Your task to perform on an android device: Open location settings Image 0: 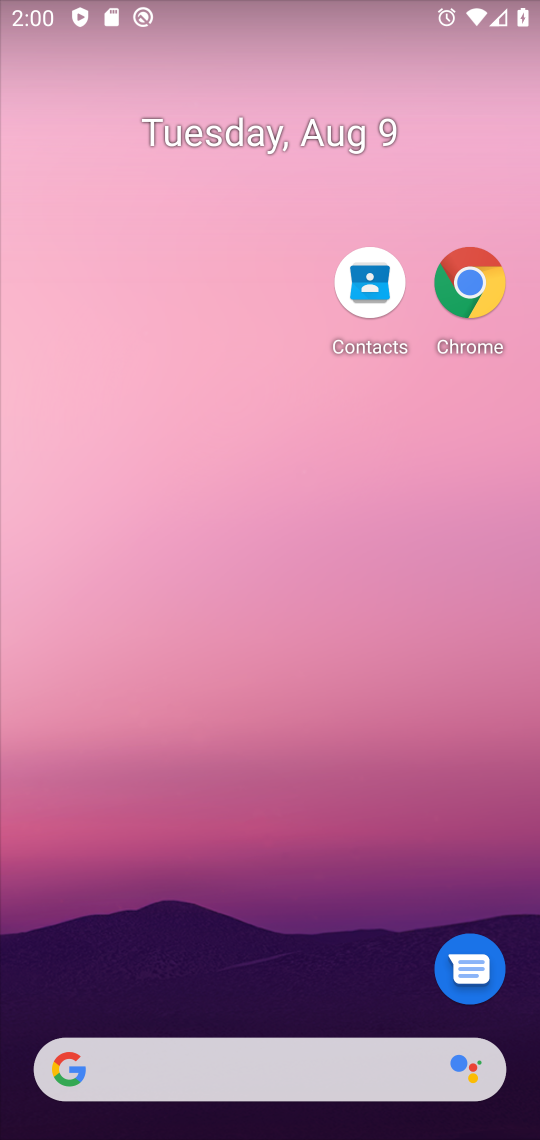
Step 0: drag from (308, 995) to (283, 262)
Your task to perform on an android device: Open location settings Image 1: 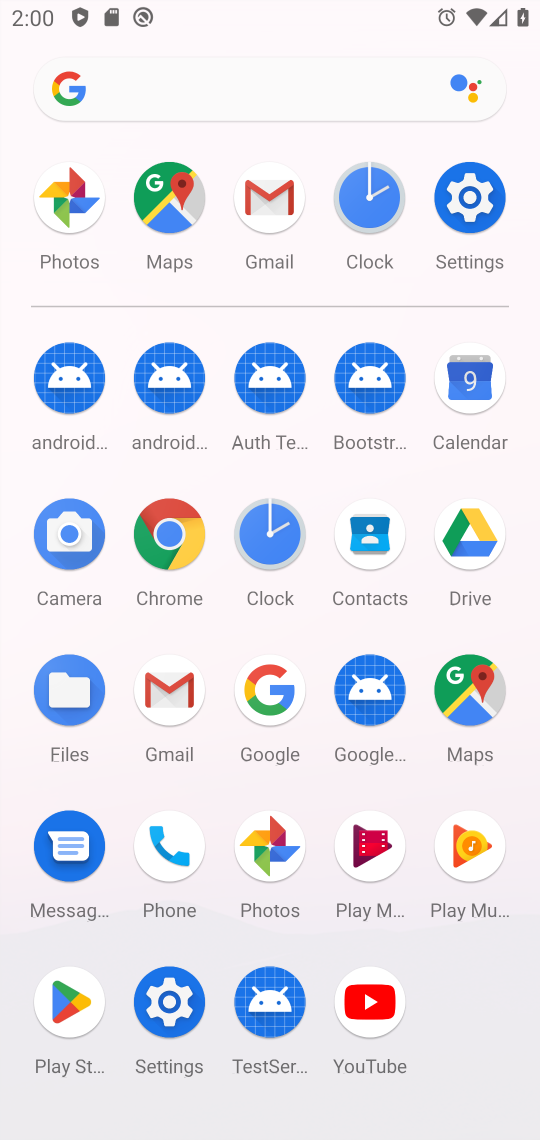
Step 1: click (179, 976)
Your task to perform on an android device: Open location settings Image 2: 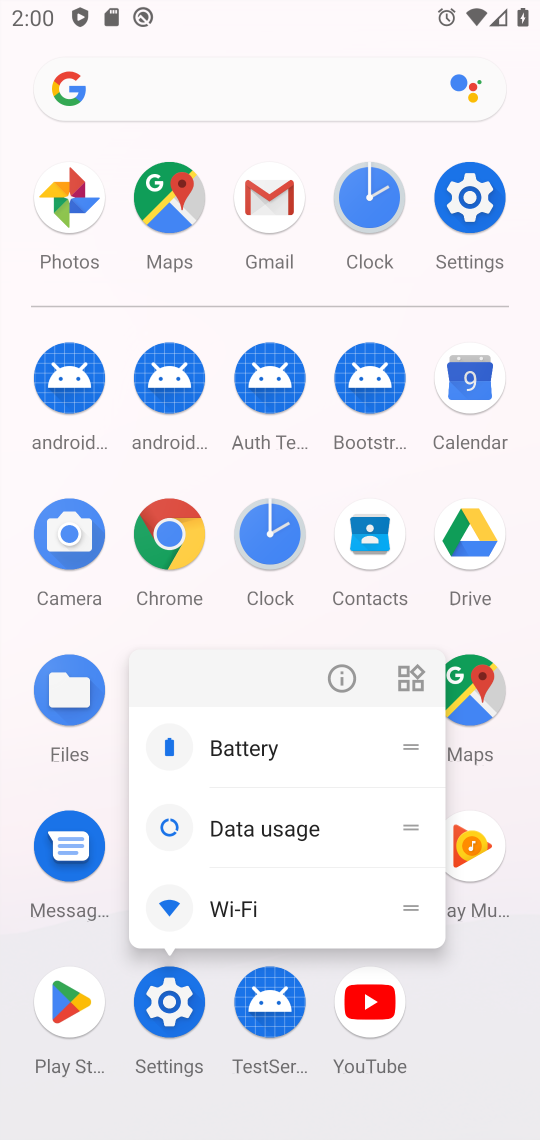
Step 2: click (340, 667)
Your task to perform on an android device: Open location settings Image 3: 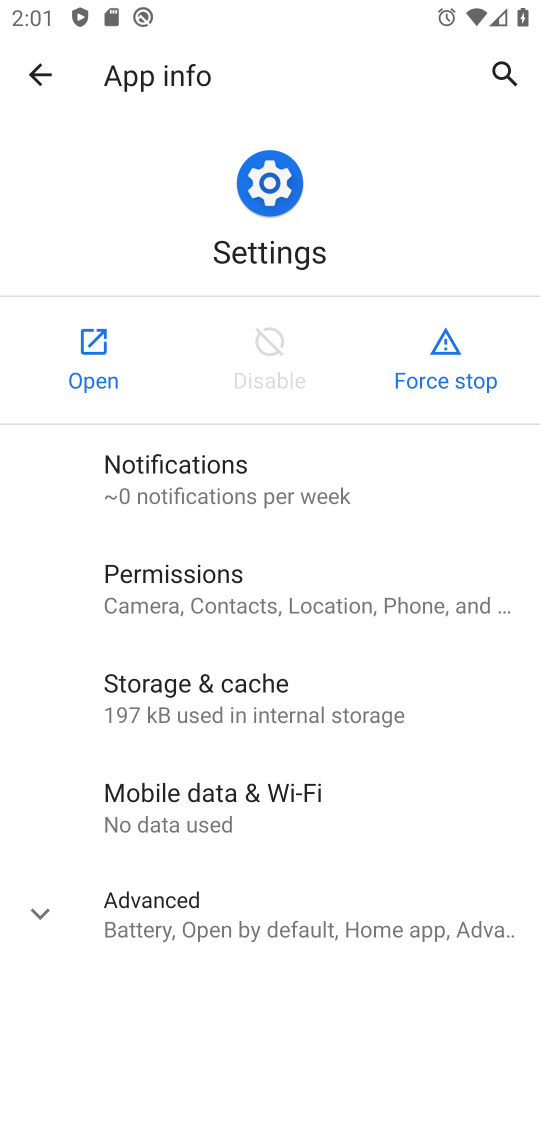
Step 3: click (101, 333)
Your task to perform on an android device: Open location settings Image 4: 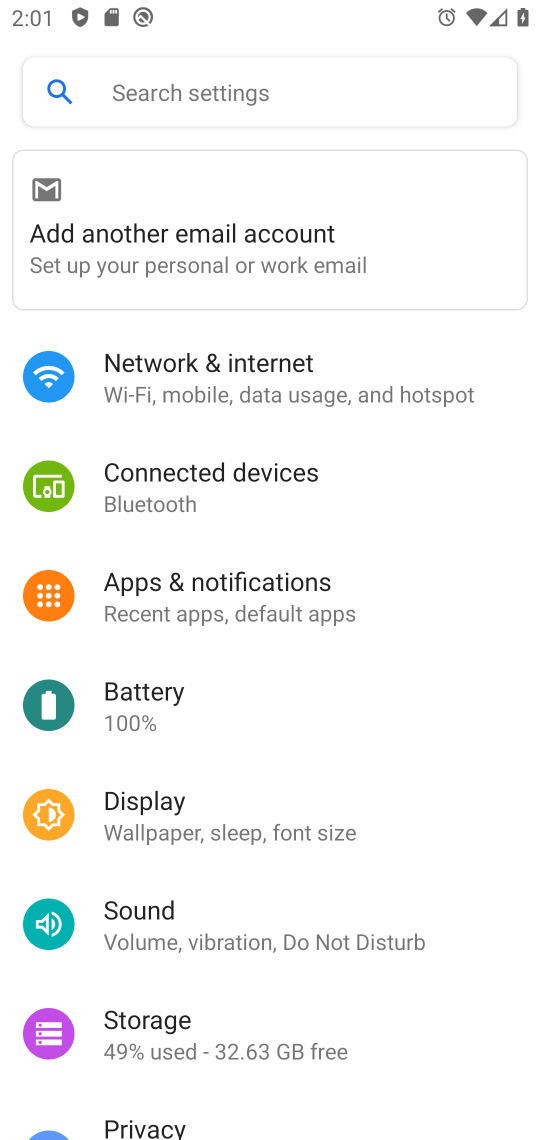
Step 4: drag from (237, 919) to (287, 455)
Your task to perform on an android device: Open location settings Image 5: 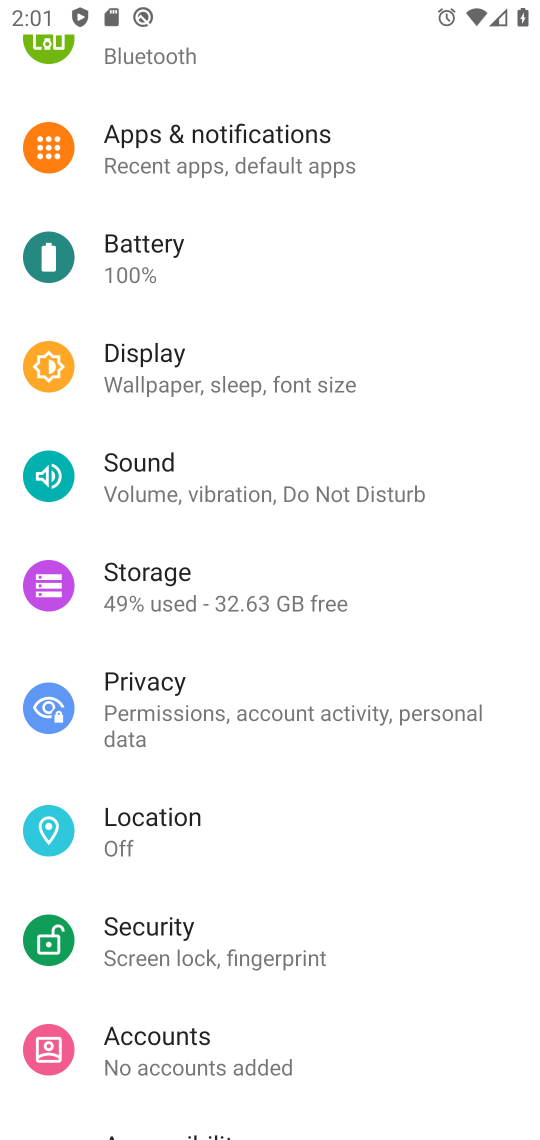
Step 5: click (224, 838)
Your task to perform on an android device: Open location settings Image 6: 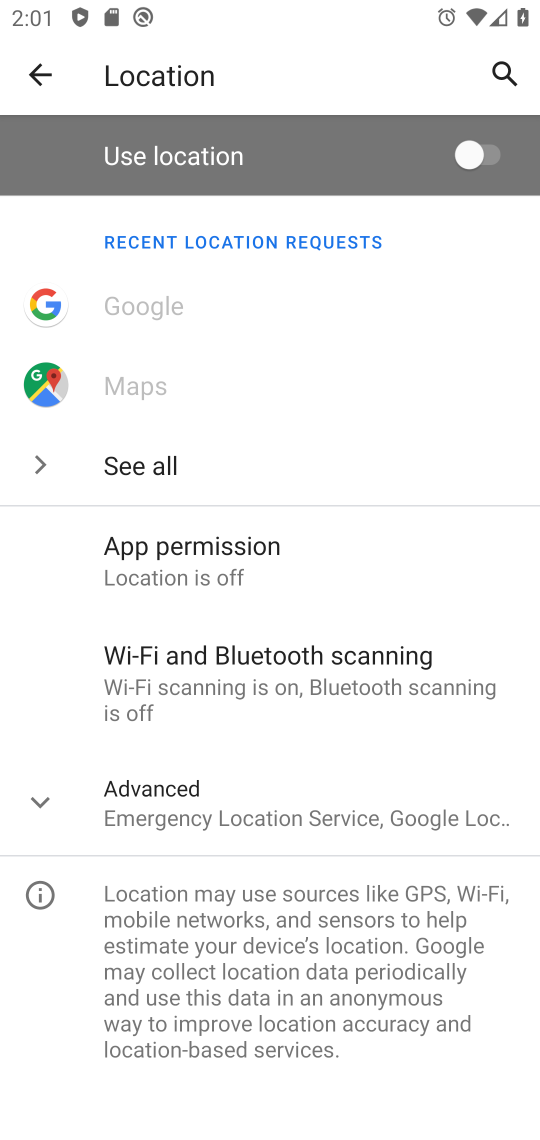
Step 6: task complete